Your task to perform on an android device: toggle notification dots Image 0: 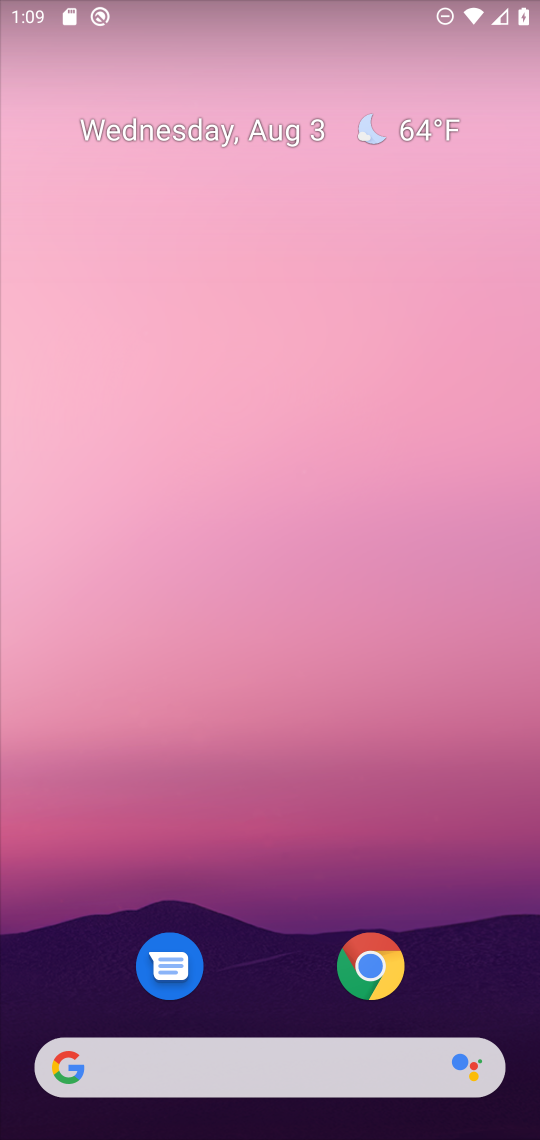
Step 0: drag from (255, 982) to (178, 200)
Your task to perform on an android device: toggle notification dots Image 1: 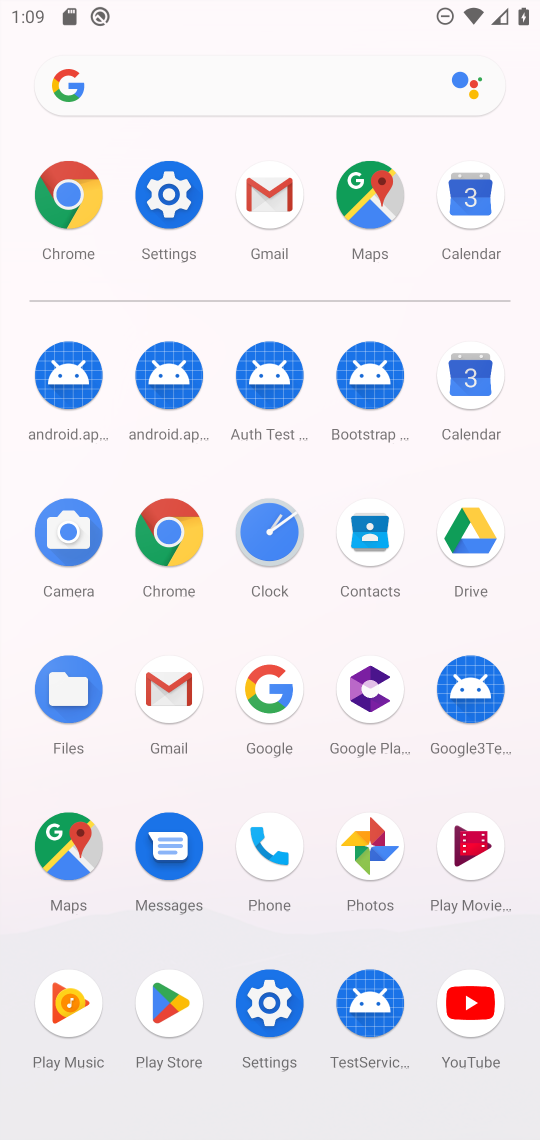
Step 1: click (187, 189)
Your task to perform on an android device: toggle notification dots Image 2: 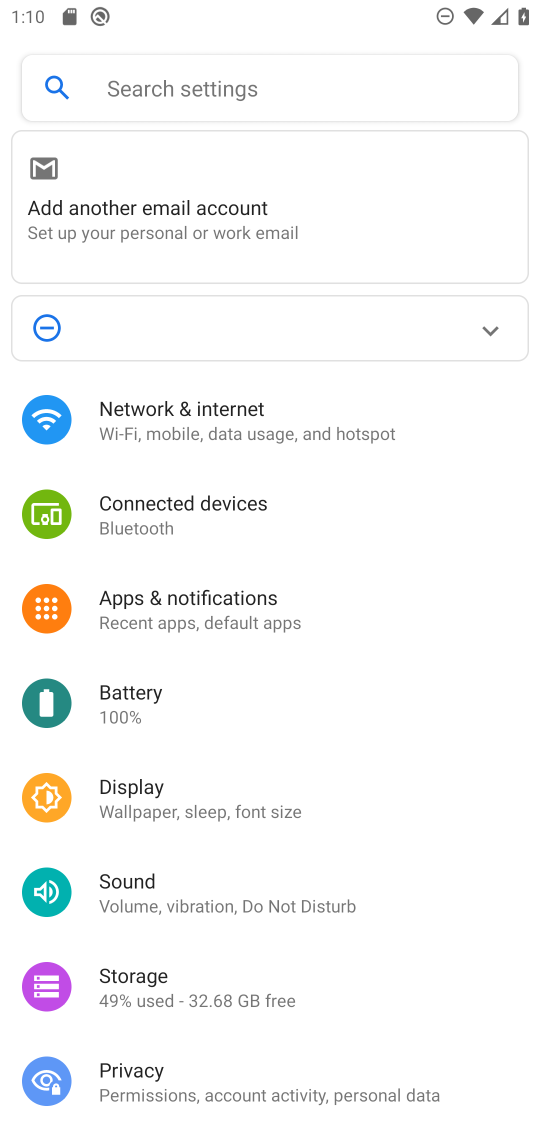
Step 2: drag from (275, 425) to (246, 731)
Your task to perform on an android device: toggle notification dots Image 3: 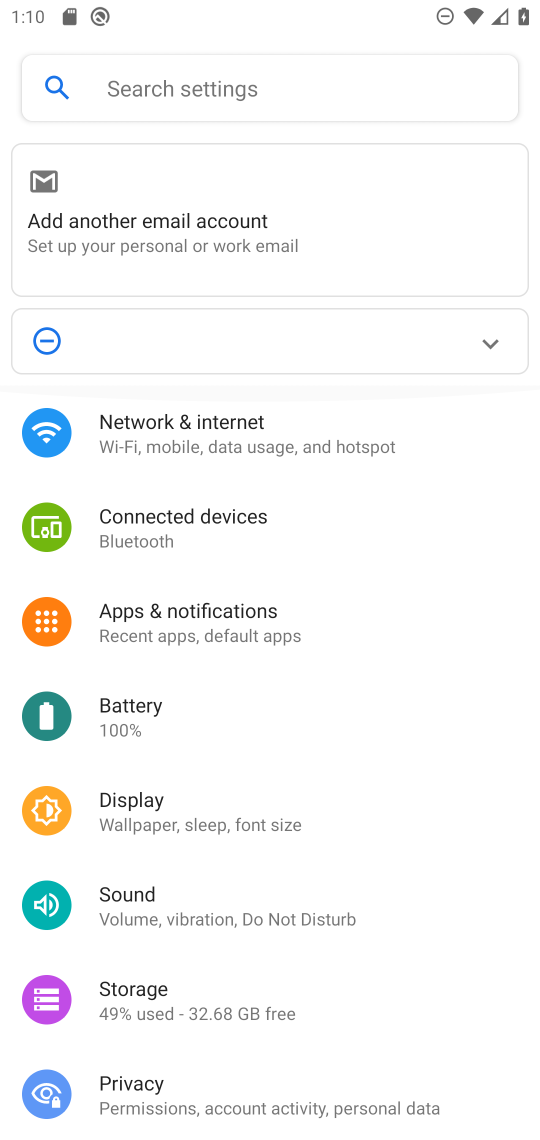
Step 3: click (223, 643)
Your task to perform on an android device: toggle notification dots Image 4: 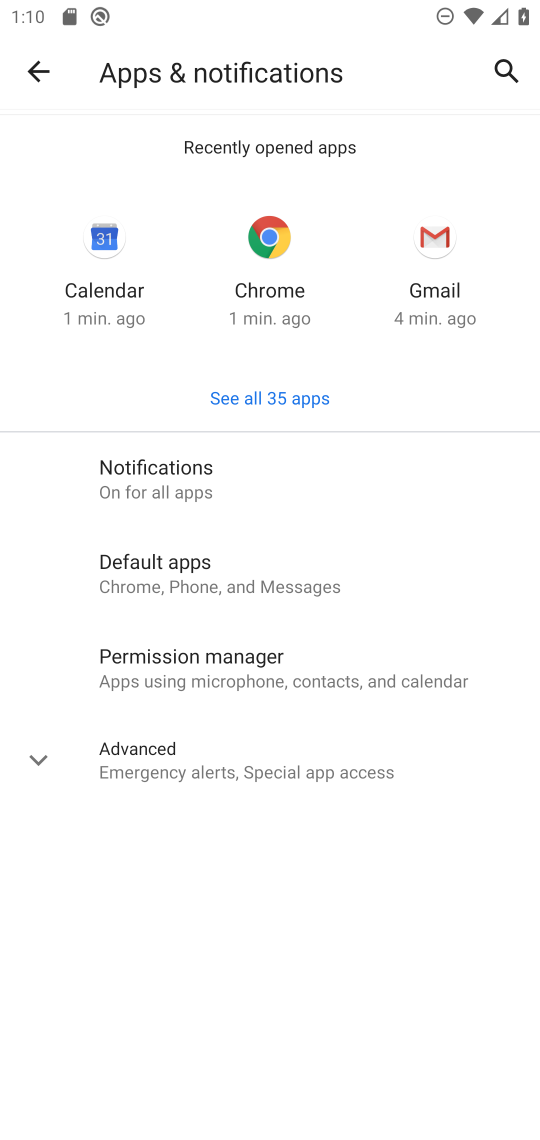
Step 4: click (223, 503)
Your task to perform on an android device: toggle notification dots Image 5: 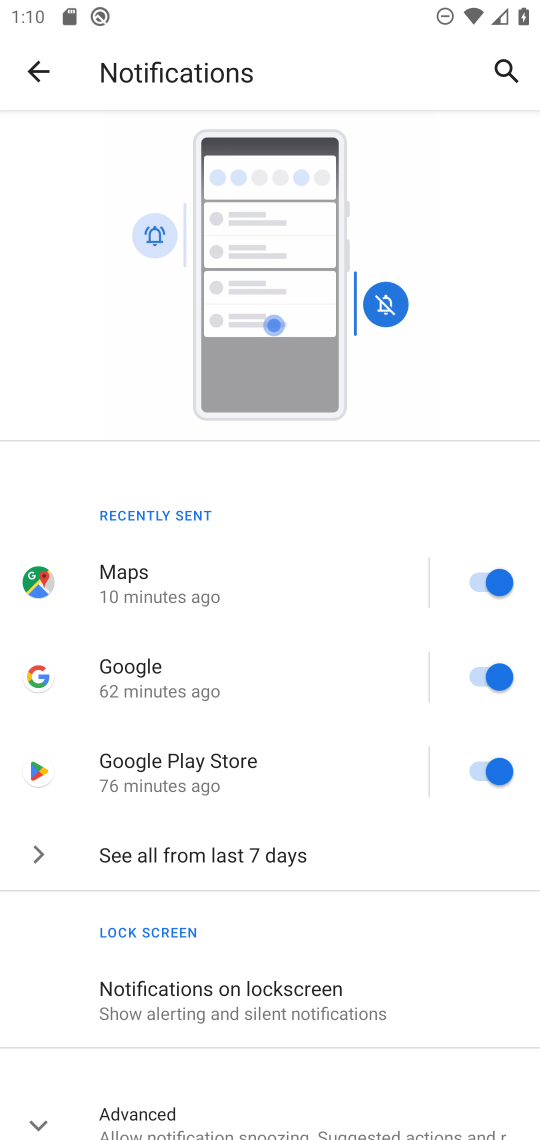
Step 5: drag from (288, 1056) to (299, 442)
Your task to perform on an android device: toggle notification dots Image 6: 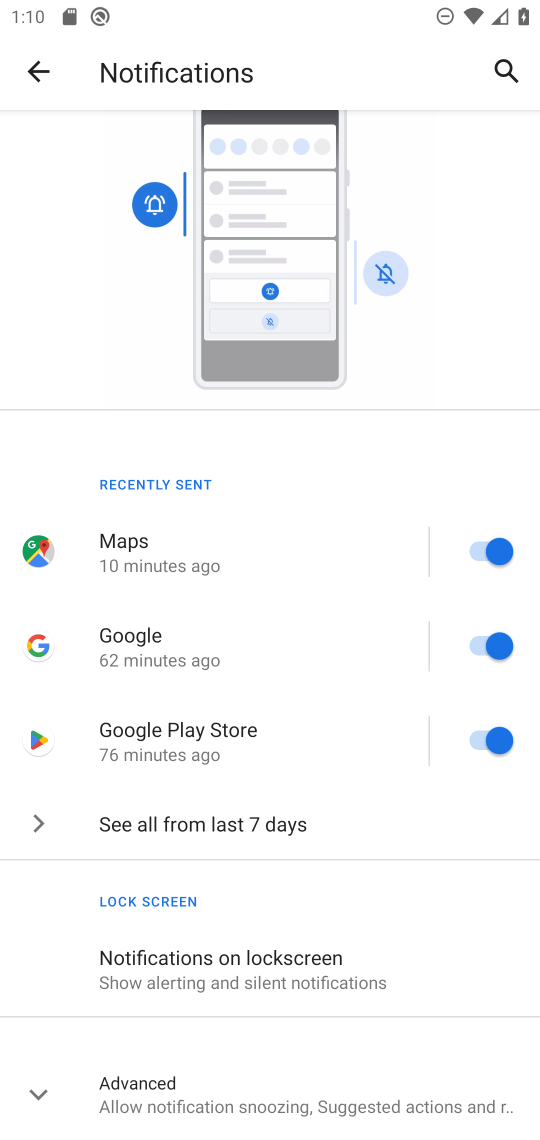
Step 6: click (292, 1083)
Your task to perform on an android device: toggle notification dots Image 7: 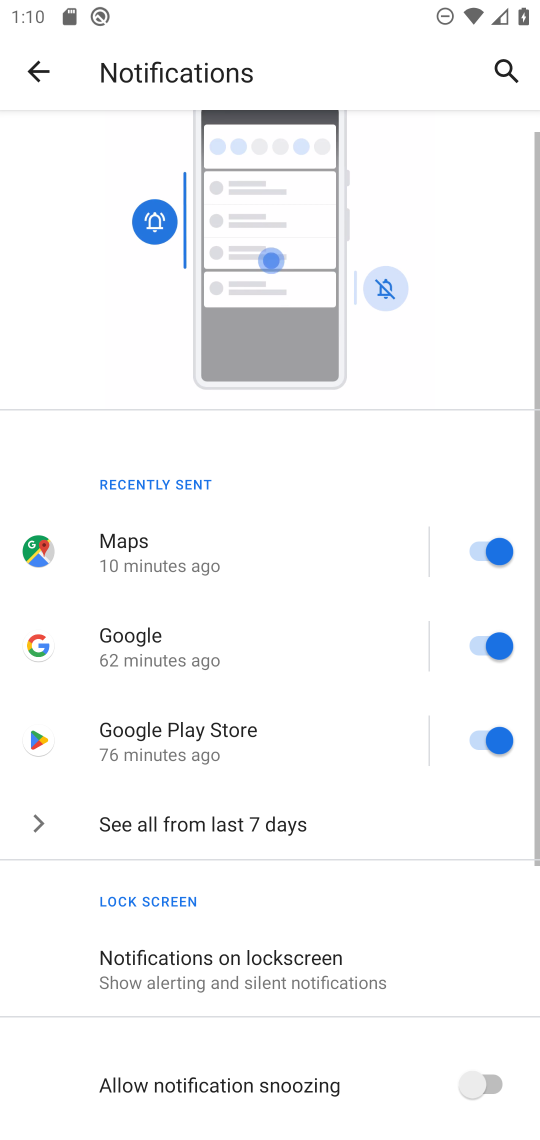
Step 7: drag from (242, 947) to (228, 354)
Your task to perform on an android device: toggle notification dots Image 8: 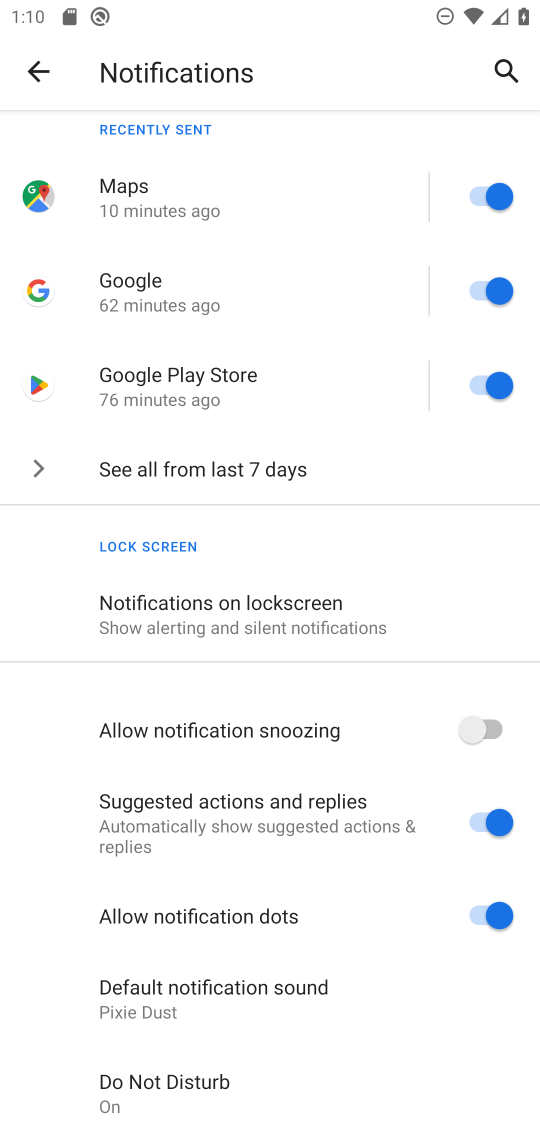
Step 8: click (475, 909)
Your task to perform on an android device: toggle notification dots Image 9: 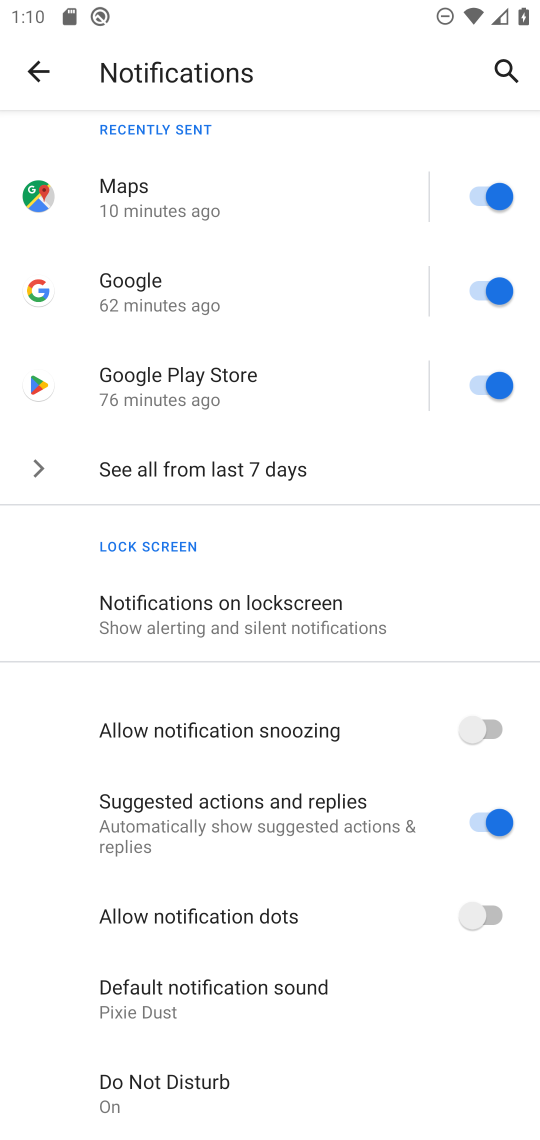
Step 9: task complete